Your task to perform on an android device: Is it going to rain today? Image 0: 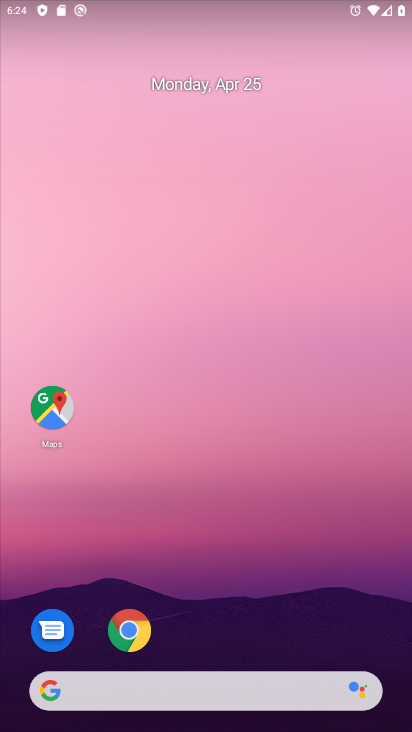
Step 0: drag from (250, 563) to (219, 79)
Your task to perform on an android device: Is it going to rain today? Image 1: 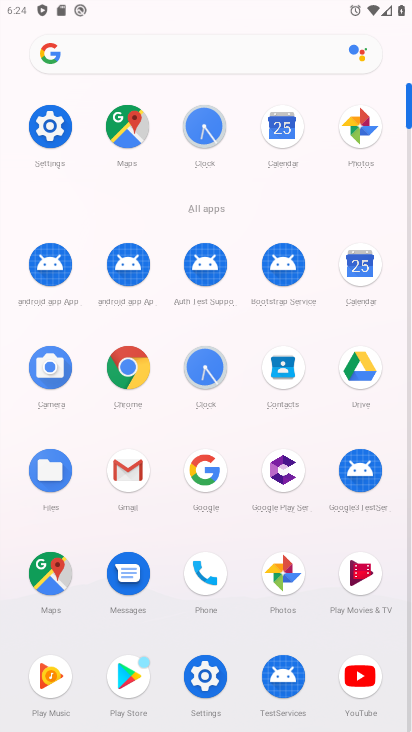
Step 1: click (208, 462)
Your task to perform on an android device: Is it going to rain today? Image 2: 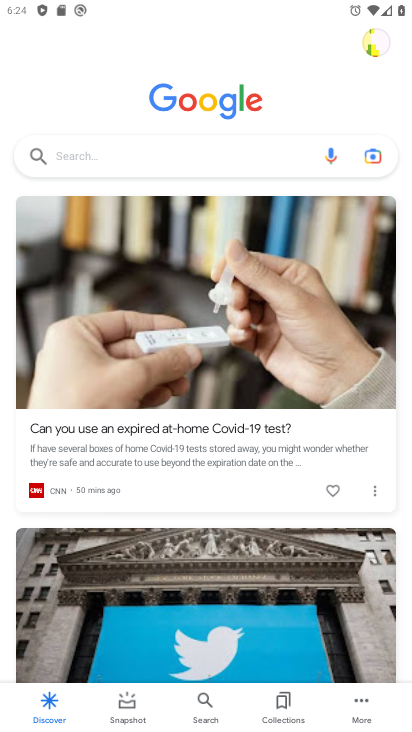
Step 2: click (140, 156)
Your task to perform on an android device: Is it going to rain today? Image 3: 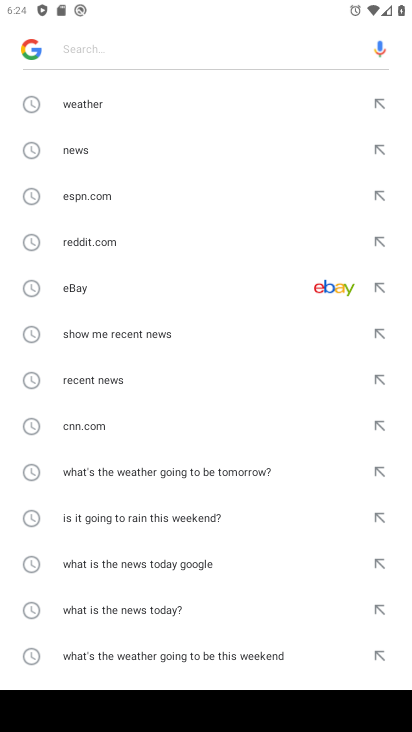
Step 3: click (92, 94)
Your task to perform on an android device: Is it going to rain today? Image 4: 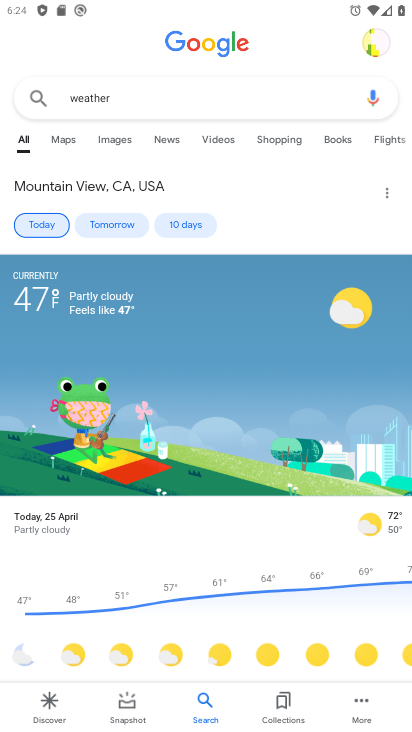
Step 4: task complete